Your task to perform on an android device: Open Google Chrome and open the bookmarks view Image 0: 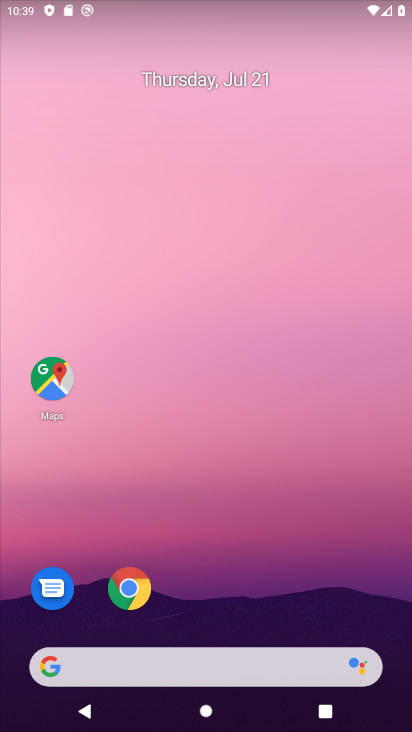
Step 0: drag from (226, 600) to (272, 201)
Your task to perform on an android device: Open Google Chrome and open the bookmarks view Image 1: 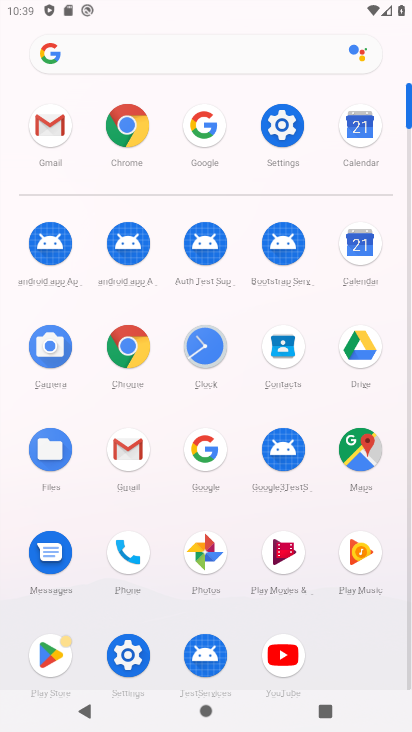
Step 1: click (128, 348)
Your task to perform on an android device: Open Google Chrome and open the bookmarks view Image 2: 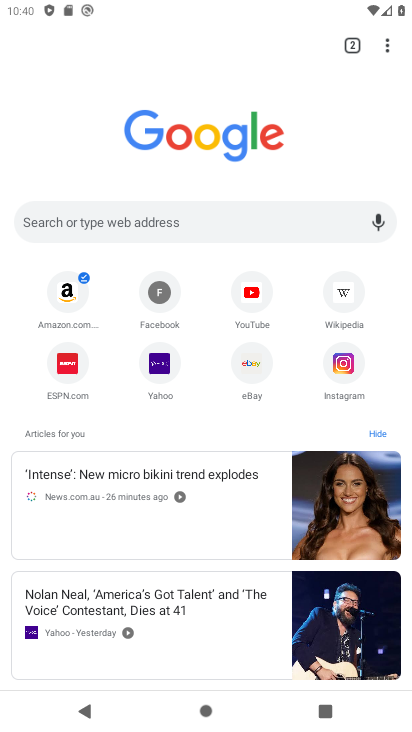
Step 2: task complete